Your task to perform on an android device: turn off sleep mode Image 0: 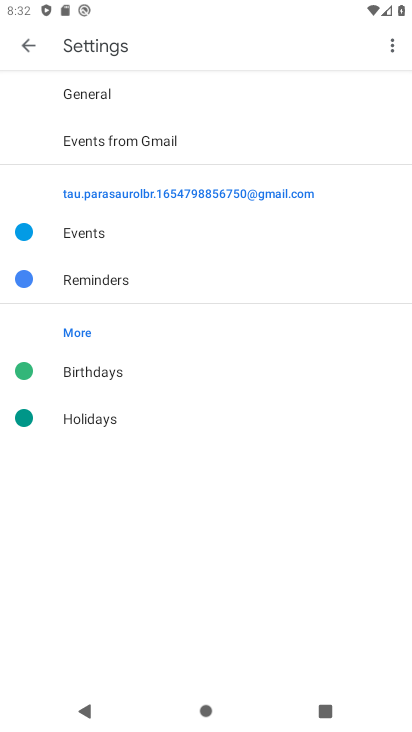
Step 0: press home button
Your task to perform on an android device: turn off sleep mode Image 1: 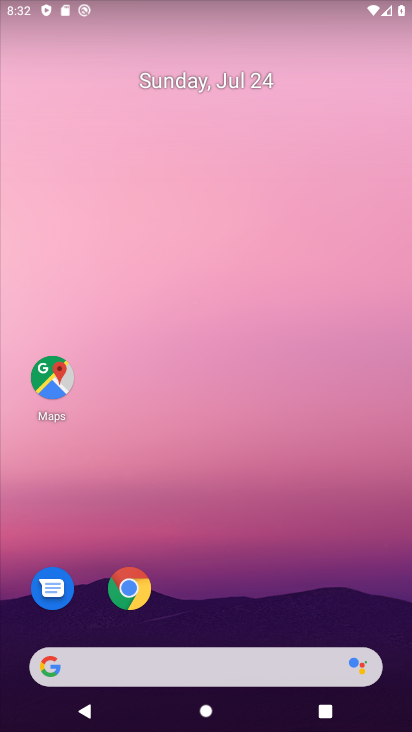
Step 1: drag from (194, 118) to (218, 30)
Your task to perform on an android device: turn off sleep mode Image 2: 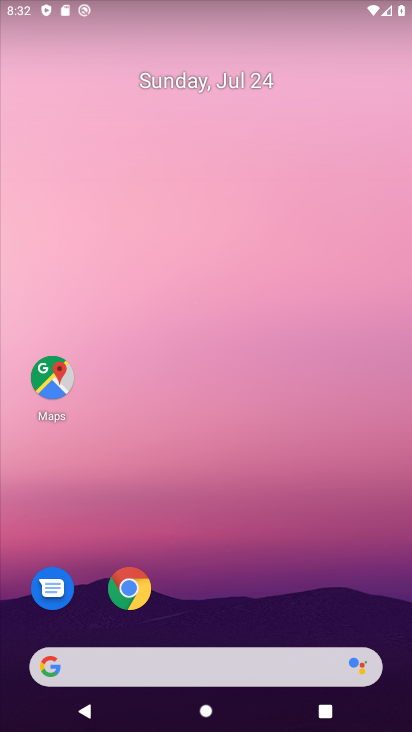
Step 2: drag from (281, 587) to (183, 8)
Your task to perform on an android device: turn off sleep mode Image 3: 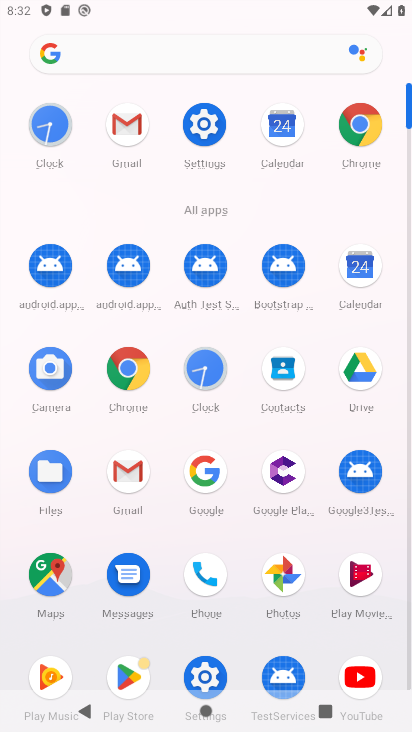
Step 3: click (207, 128)
Your task to perform on an android device: turn off sleep mode Image 4: 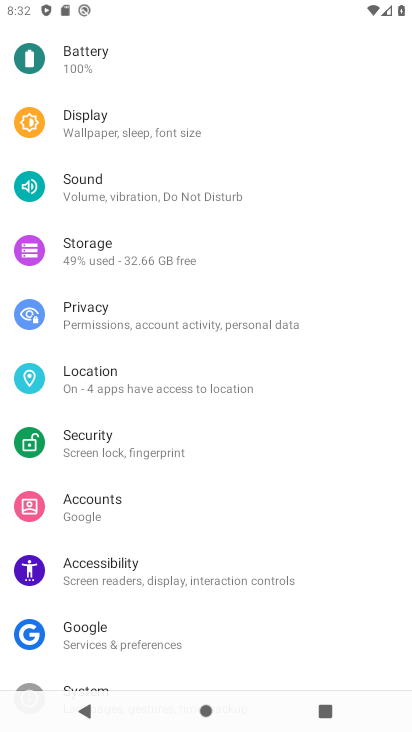
Step 4: click (158, 110)
Your task to perform on an android device: turn off sleep mode Image 5: 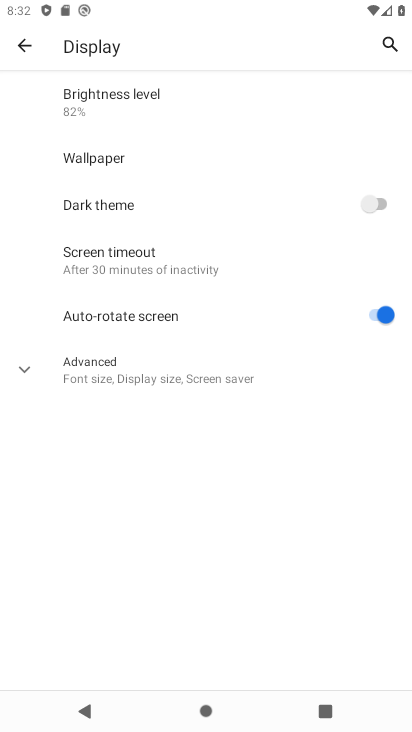
Step 5: click (199, 372)
Your task to perform on an android device: turn off sleep mode Image 6: 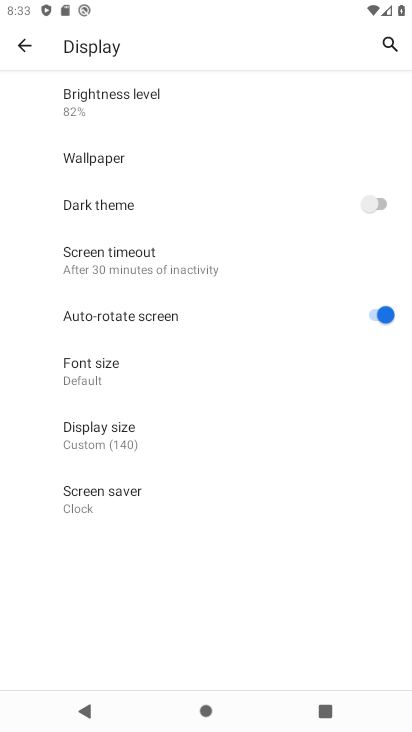
Step 6: task complete